Your task to perform on an android device: make emails show in primary in the gmail app Image 0: 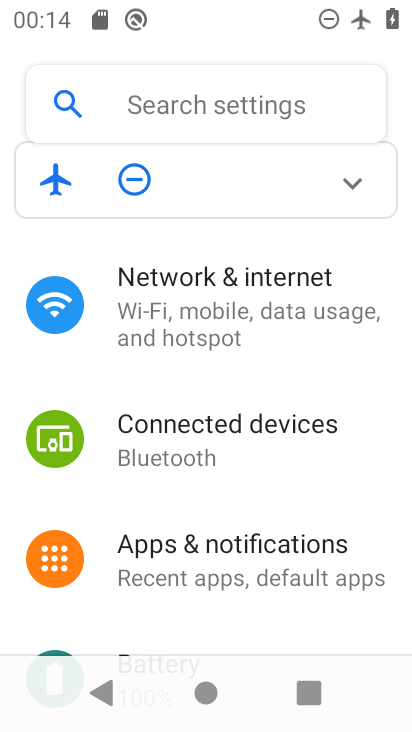
Step 0: press home button
Your task to perform on an android device: make emails show in primary in the gmail app Image 1: 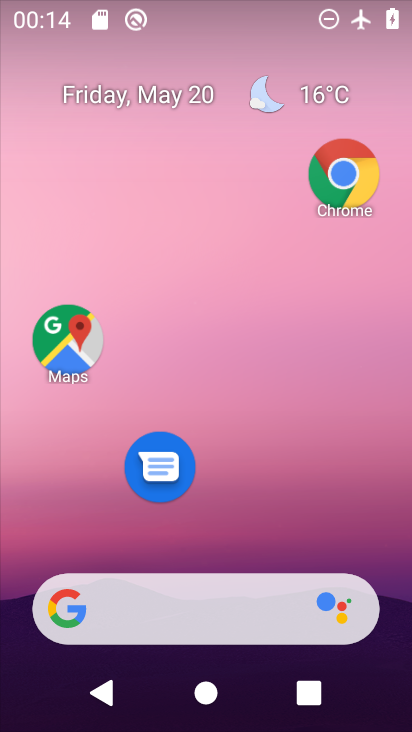
Step 1: drag from (256, 502) to (242, 177)
Your task to perform on an android device: make emails show in primary in the gmail app Image 2: 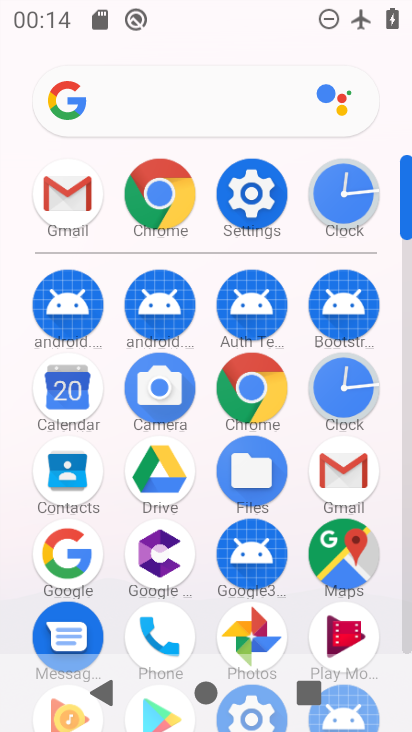
Step 2: click (328, 449)
Your task to perform on an android device: make emails show in primary in the gmail app Image 3: 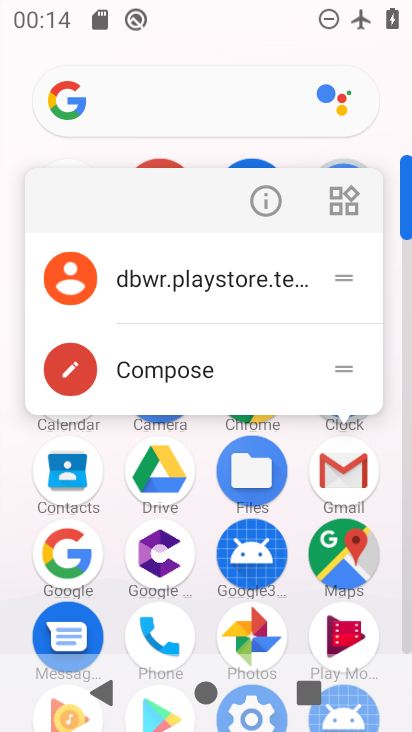
Step 3: click (348, 472)
Your task to perform on an android device: make emails show in primary in the gmail app Image 4: 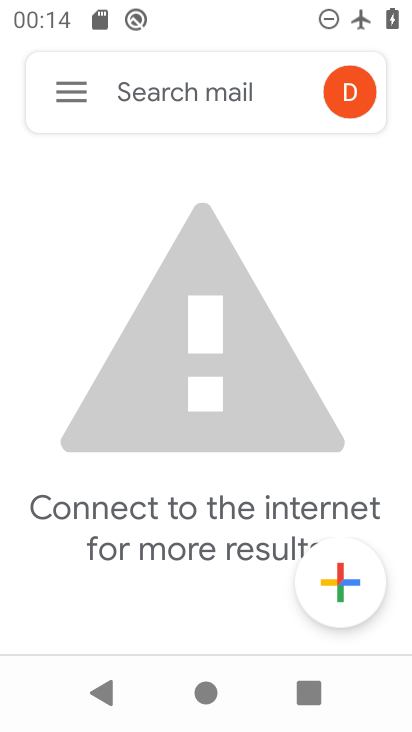
Step 4: click (52, 83)
Your task to perform on an android device: make emails show in primary in the gmail app Image 5: 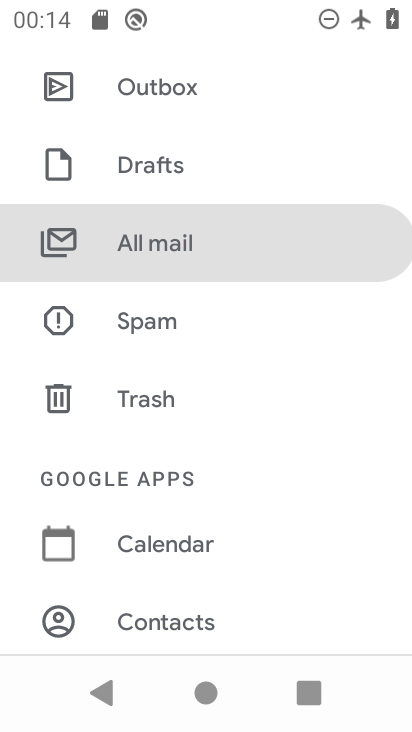
Step 5: drag from (159, 600) to (207, 320)
Your task to perform on an android device: make emails show in primary in the gmail app Image 6: 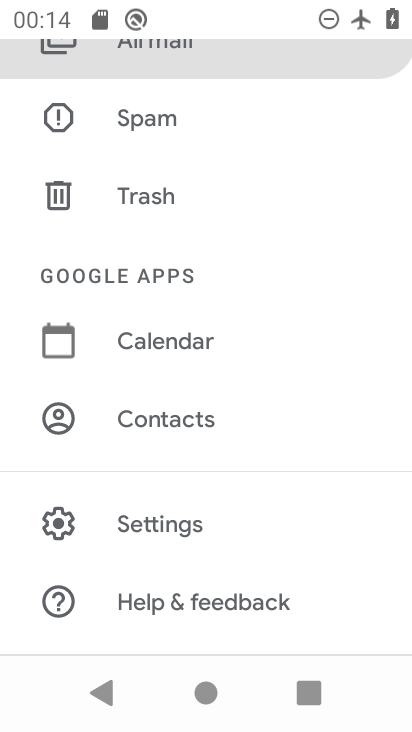
Step 6: click (185, 529)
Your task to perform on an android device: make emails show in primary in the gmail app Image 7: 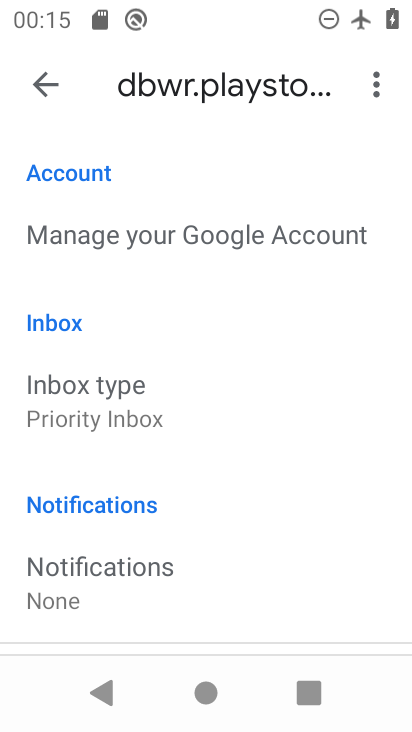
Step 7: task complete